Your task to perform on an android device: Open ESPN.com Image 0: 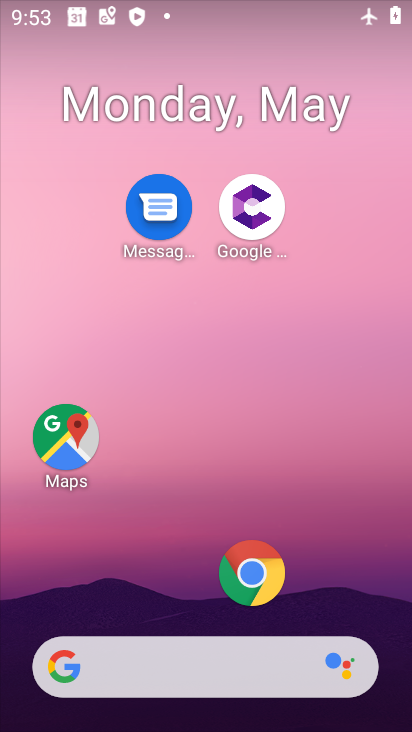
Step 0: drag from (166, 669) to (204, 91)
Your task to perform on an android device: Open ESPN.com Image 1: 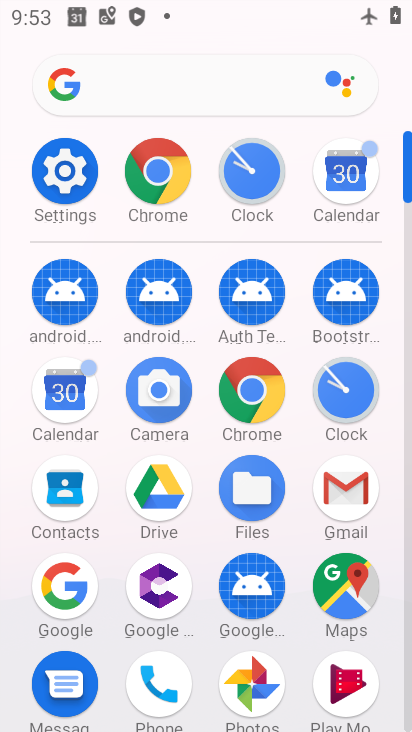
Step 1: click (158, 195)
Your task to perform on an android device: Open ESPN.com Image 2: 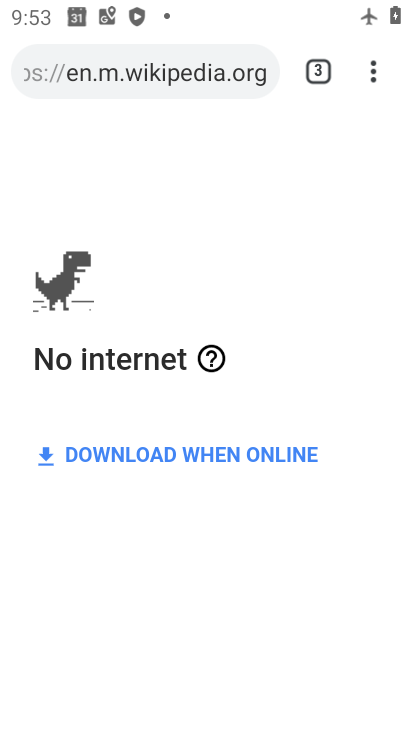
Step 2: click (173, 76)
Your task to perform on an android device: Open ESPN.com Image 3: 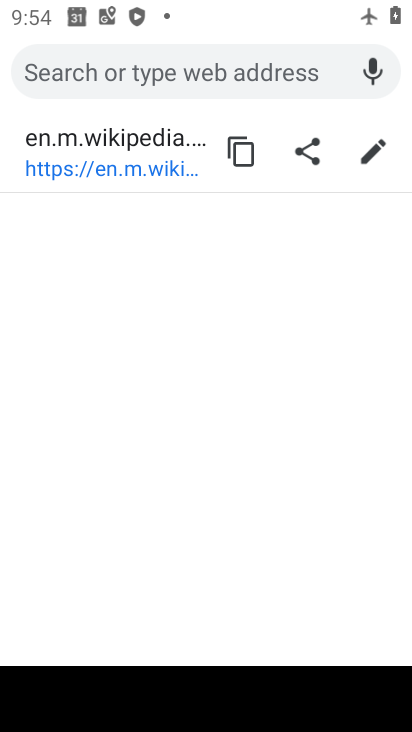
Step 3: type "espn"
Your task to perform on an android device: Open ESPN.com Image 4: 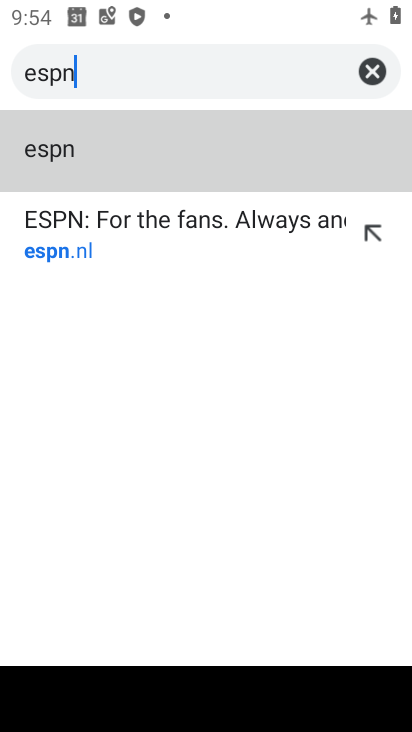
Step 4: click (233, 222)
Your task to perform on an android device: Open ESPN.com Image 5: 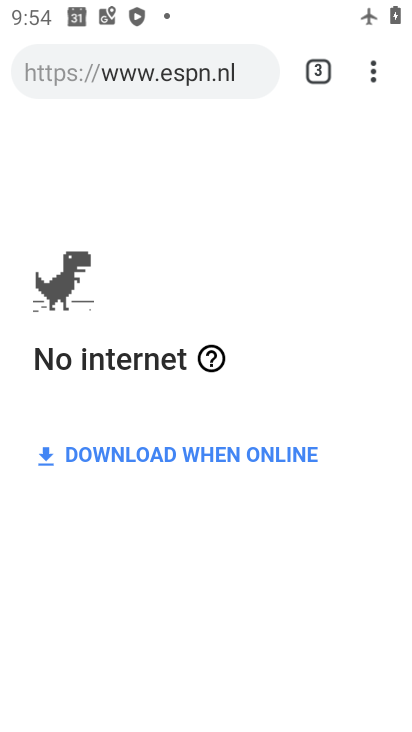
Step 5: task complete